Your task to perform on an android device: Go to notification settings Image 0: 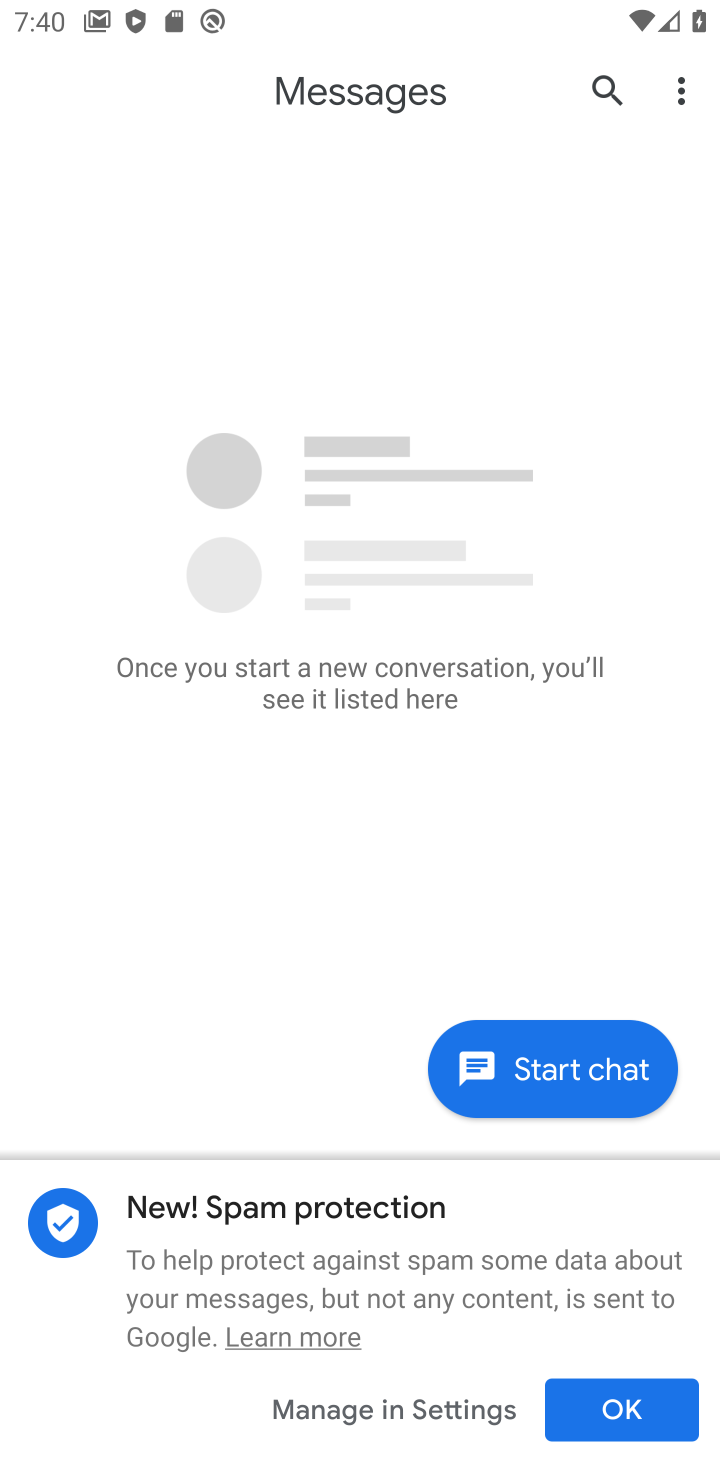
Step 0: press home button
Your task to perform on an android device: Go to notification settings Image 1: 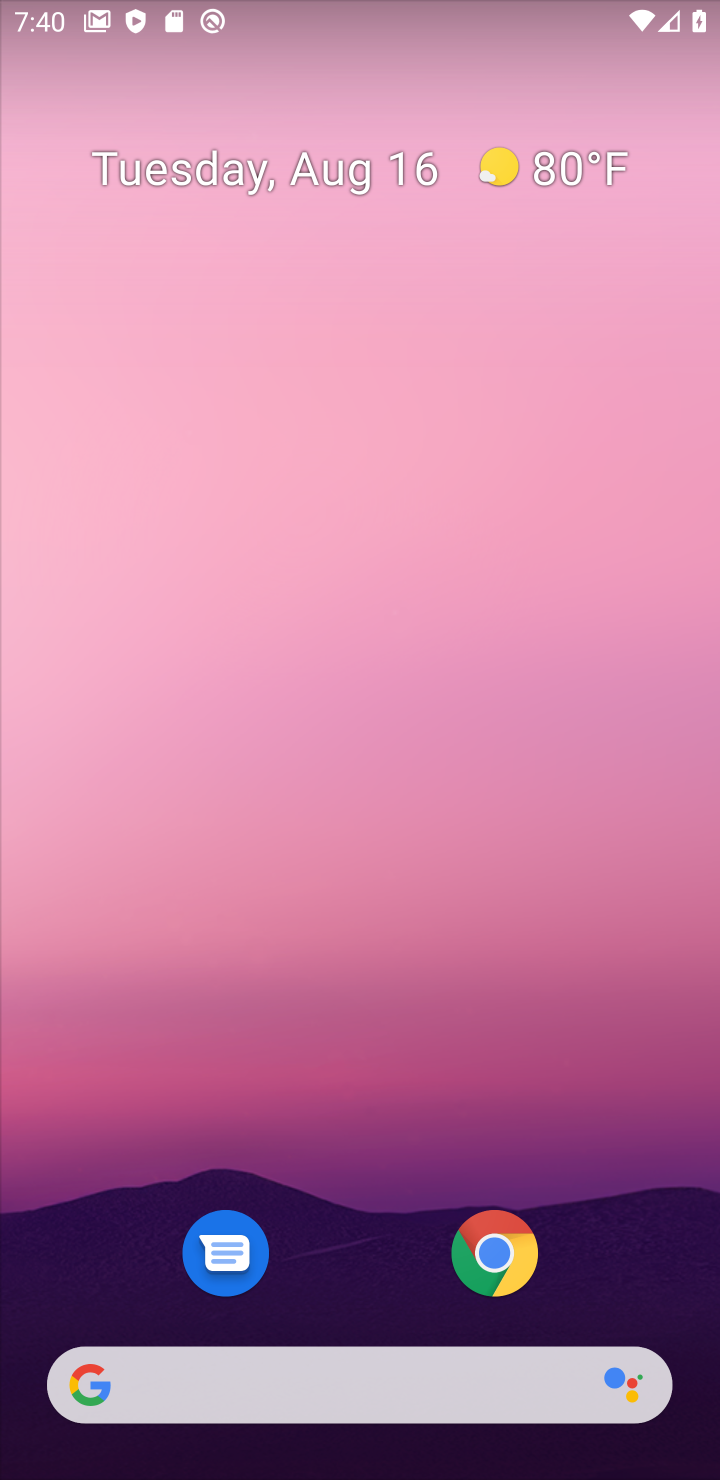
Step 1: drag from (310, 1393) to (507, 109)
Your task to perform on an android device: Go to notification settings Image 2: 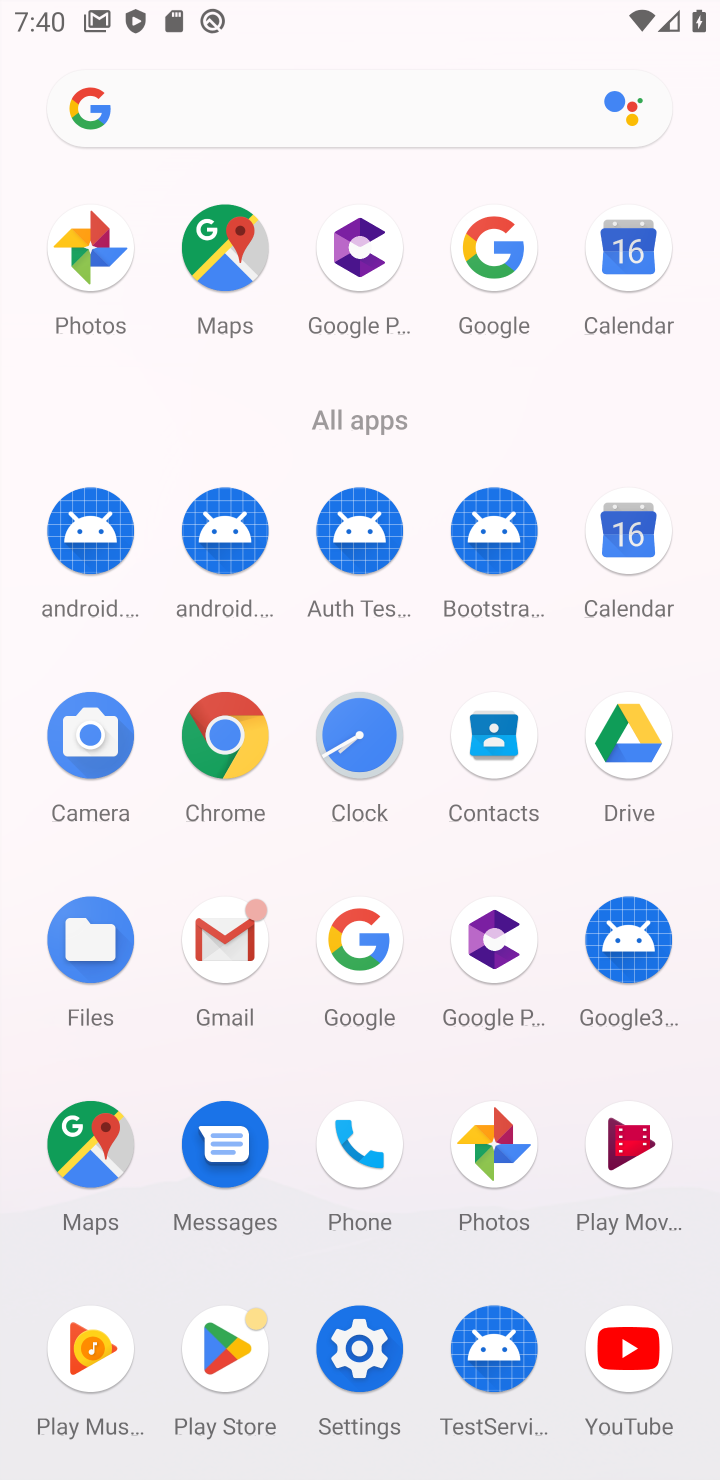
Step 2: click (357, 1348)
Your task to perform on an android device: Go to notification settings Image 3: 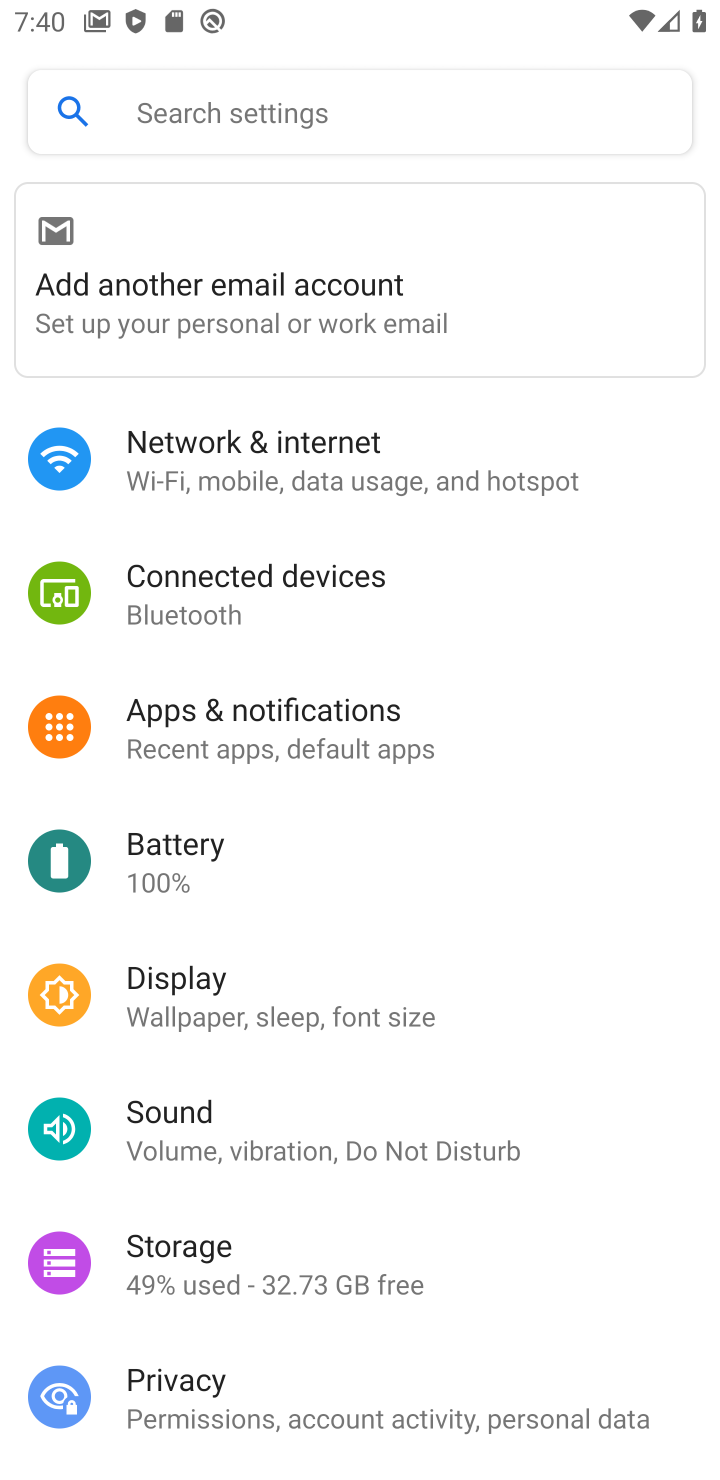
Step 3: drag from (283, 1095) to (492, 589)
Your task to perform on an android device: Go to notification settings Image 4: 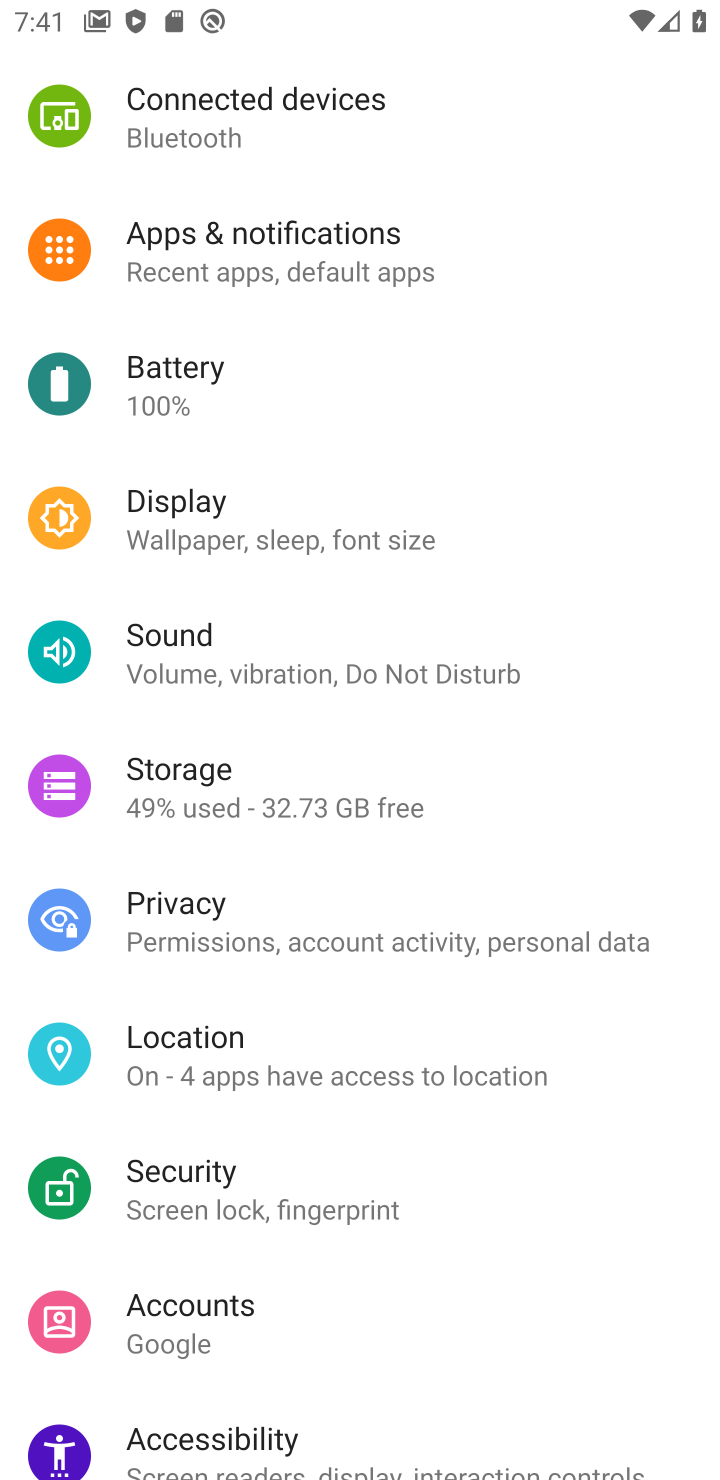
Step 4: click (333, 238)
Your task to perform on an android device: Go to notification settings Image 5: 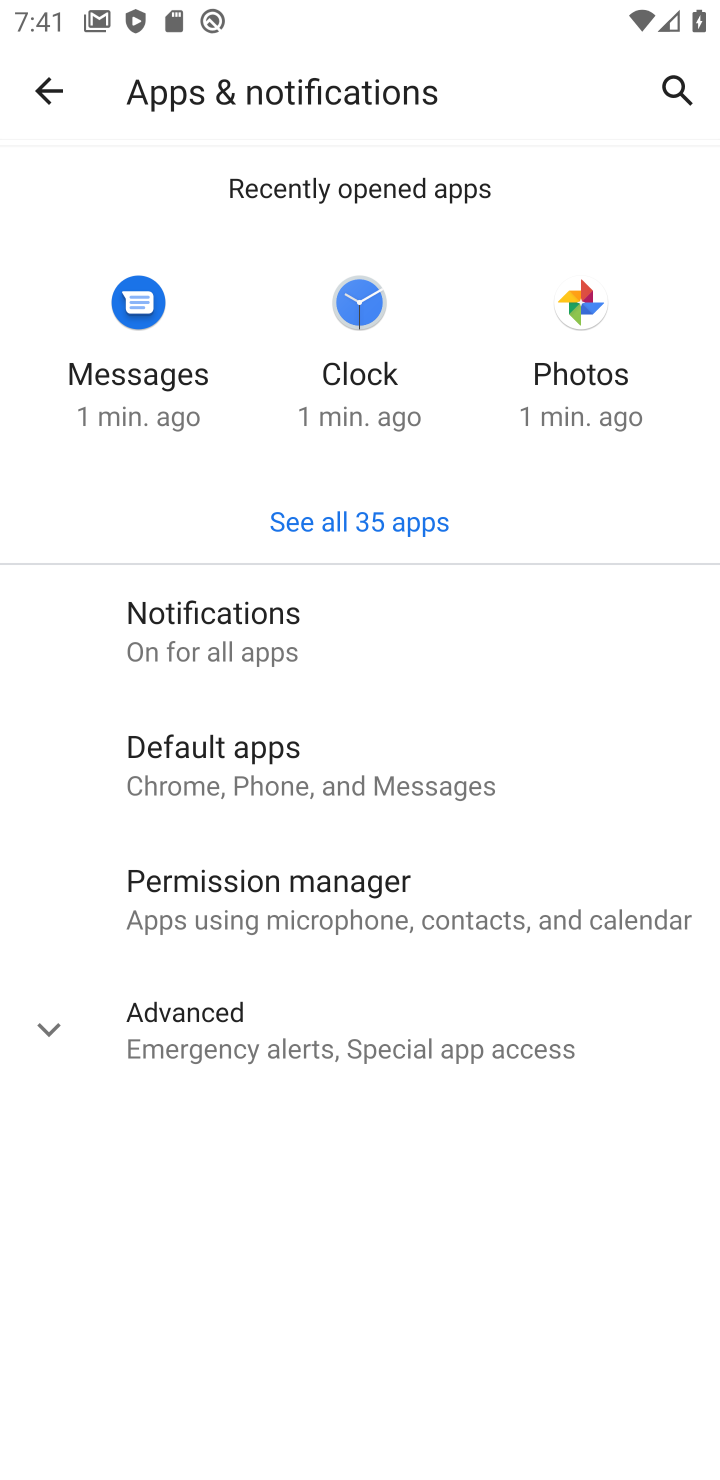
Step 5: click (241, 640)
Your task to perform on an android device: Go to notification settings Image 6: 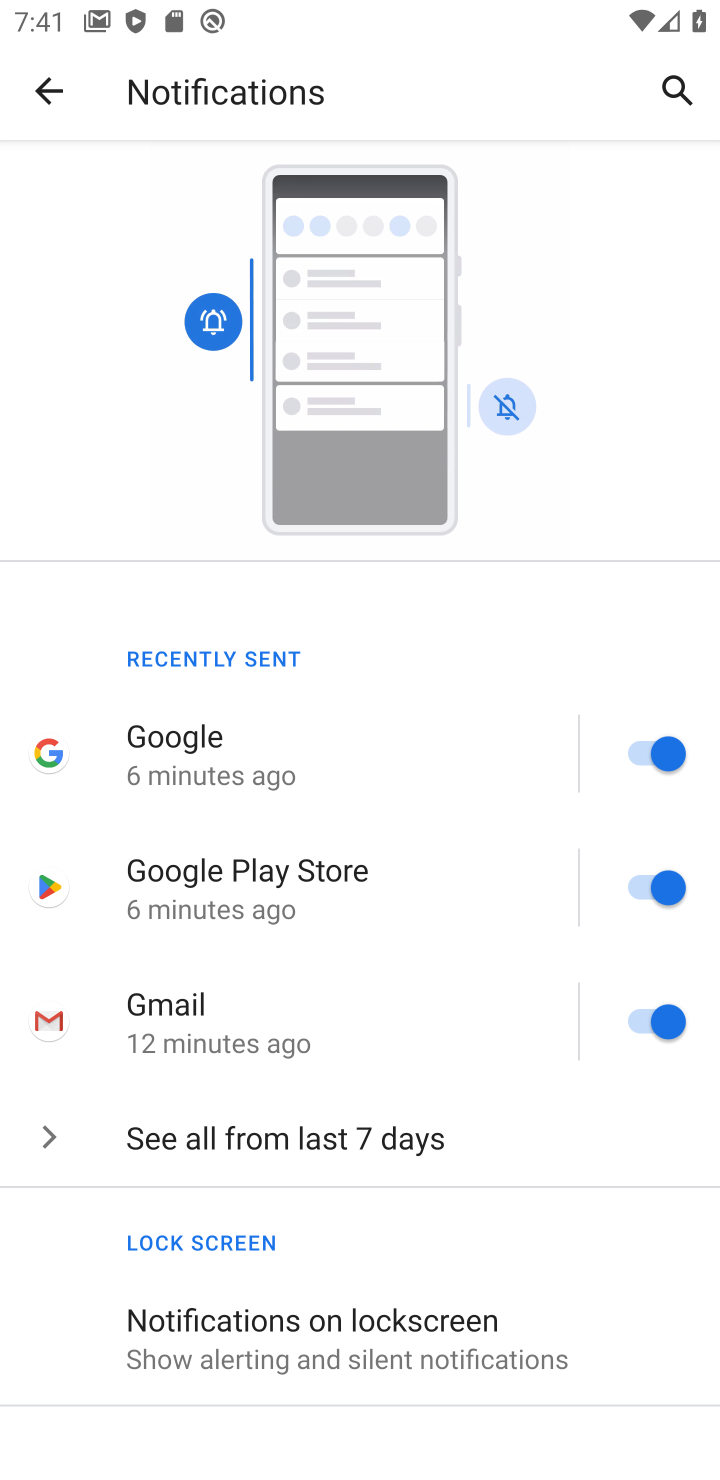
Step 6: drag from (311, 1258) to (463, 770)
Your task to perform on an android device: Go to notification settings Image 7: 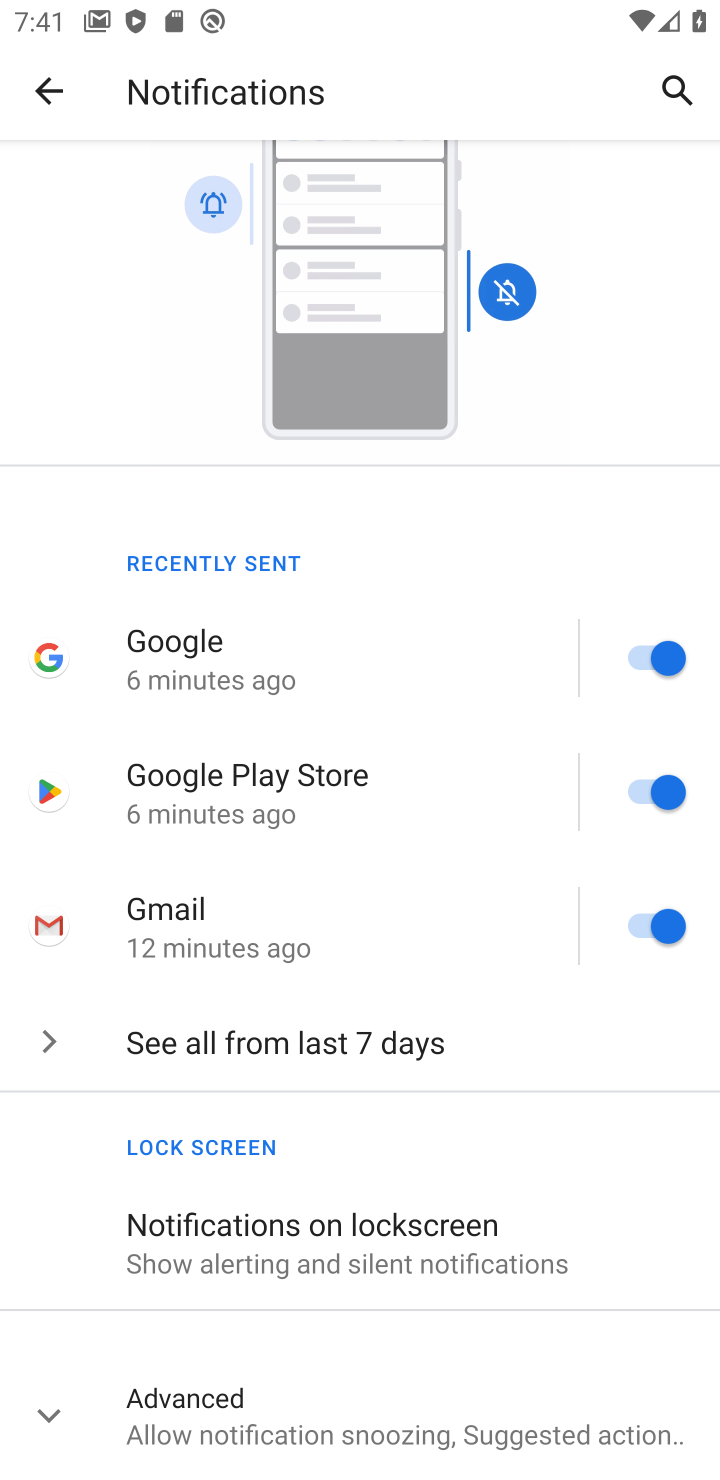
Step 7: click (225, 1413)
Your task to perform on an android device: Go to notification settings Image 8: 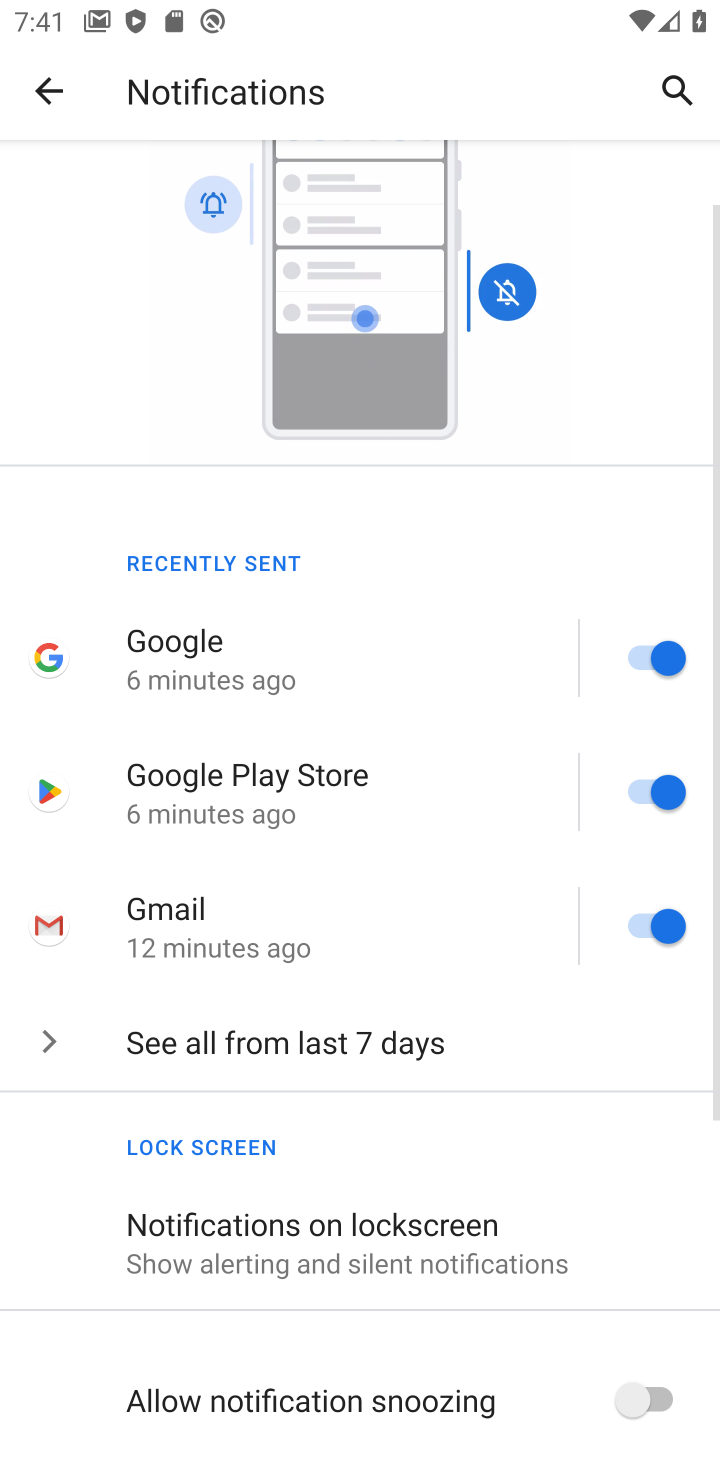
Step 8: task complete